Your task to perform on an android device: See recent photos Image 0: 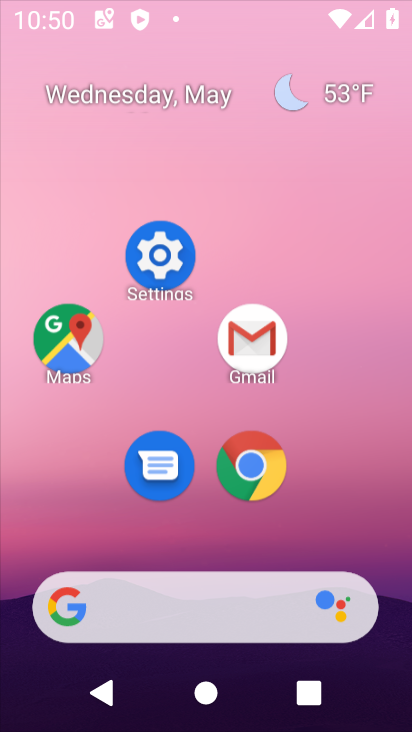
Step 0: click (316, 243)
Your task to perform on an android device: See recent photos Image 1: 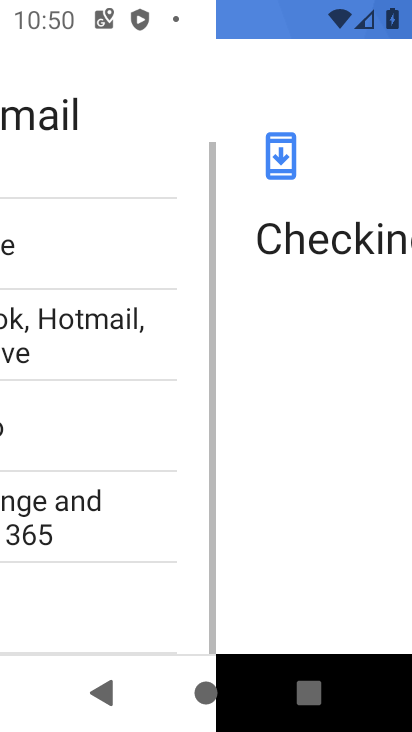
Step 1: drag from (223, 581) to (334, 265)
Your task to perform on an android device: See recent photos Image 2: 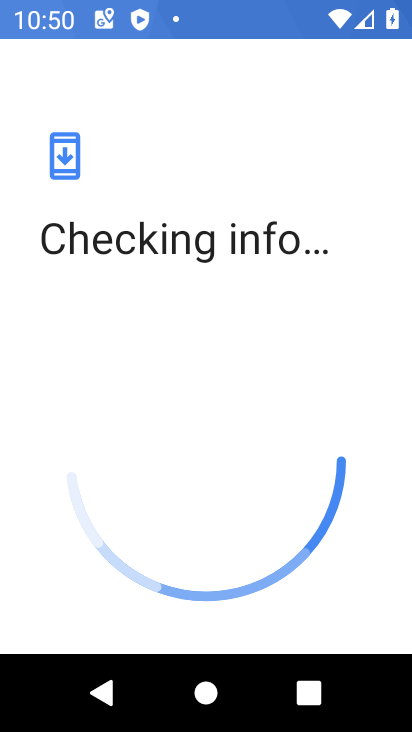
Step 2: press home button
Your task to perform on an android device: See recent photos Image 3: 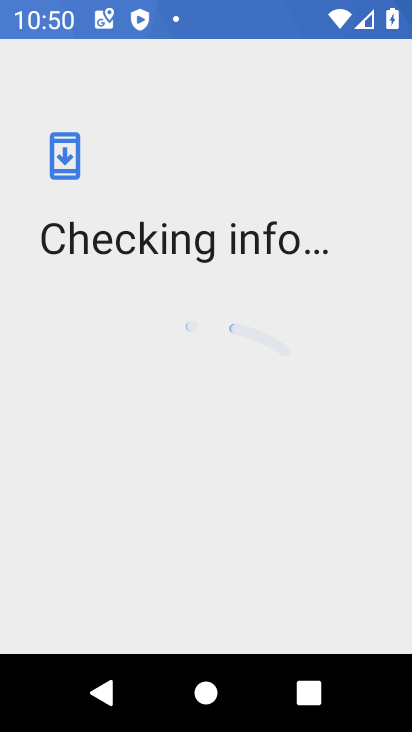
Step 3: press home button
Your task to perform on an android device: See recent photos Image 4: 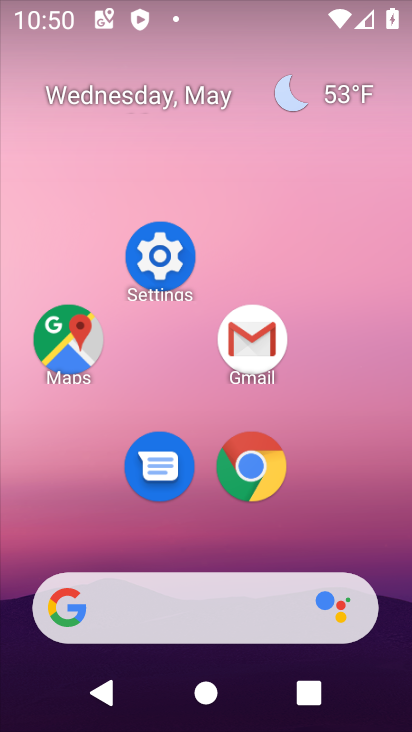
Step 4: drag from (184, 564) to (232, 74)
Your task to perform on an android device: See recent photos Image 5: 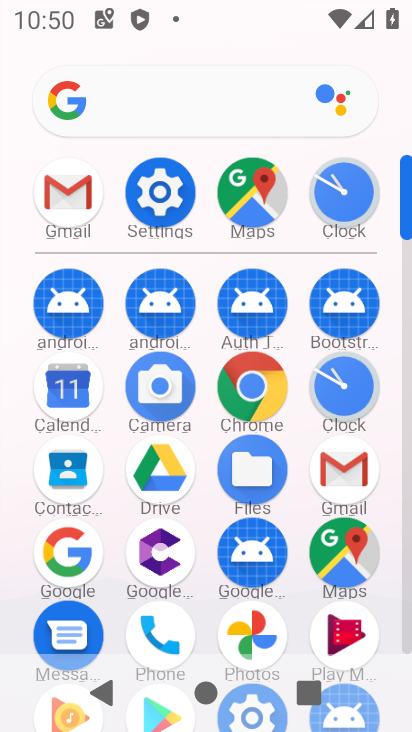
Step 5: click (185, 102)
Your task to perform on an android device: See recent photos Image 6: 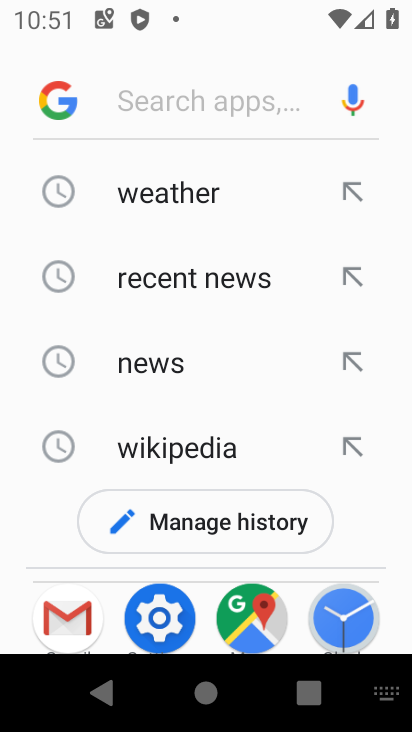
Step 6: press home button
Your task to perform on an android device: See recent photos Image 7: 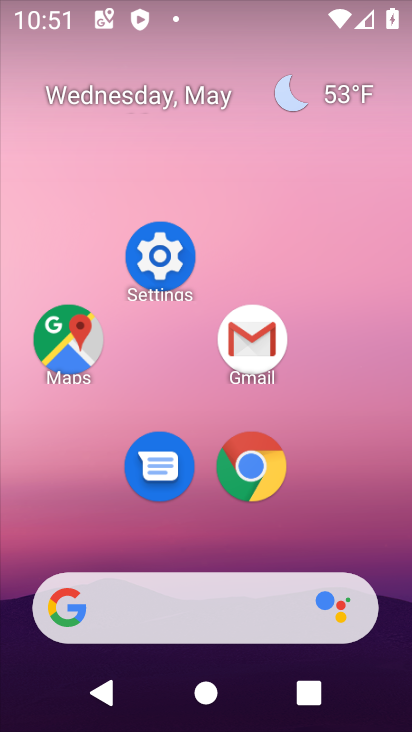
Step 7: drag from (181, 573) to (202, 156)
Your task to perform on an android device: See recent photos Image 8: 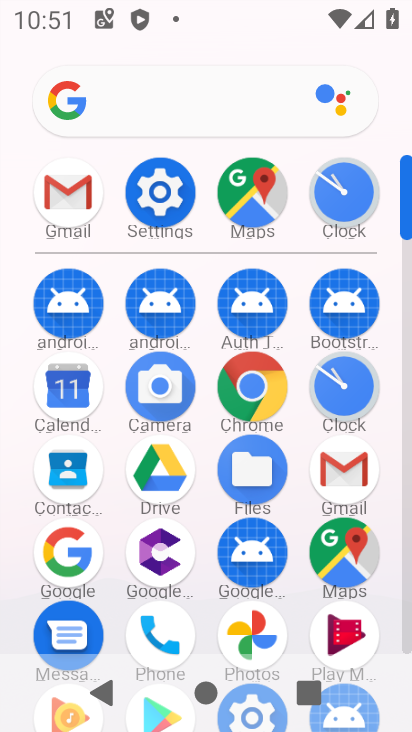
Step 8: click (253, 630)
Your task to perform on an android device: See recent photos Image 9: 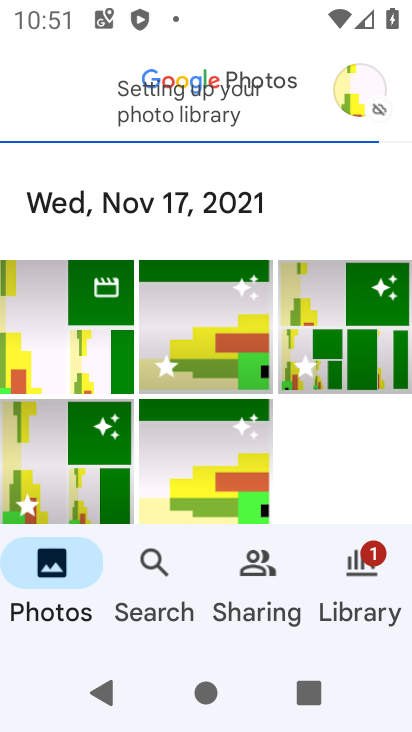
Step 9: click (72, 338)
Your task to perform on an android device: See recent photos Image 10: 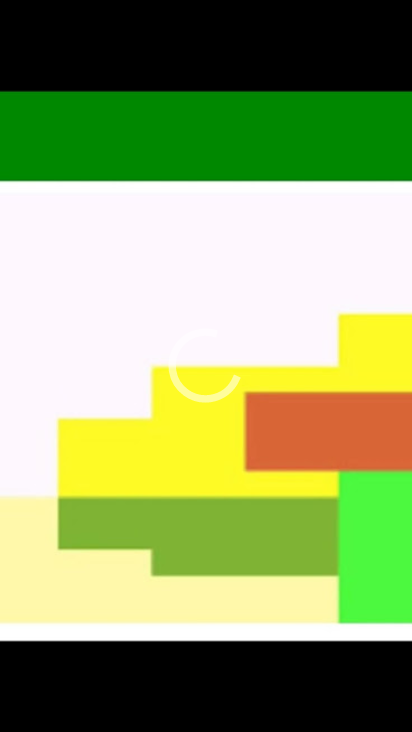
Step 10: task complete